Your task to perform on an android device: turn off airplane mode Image 0: 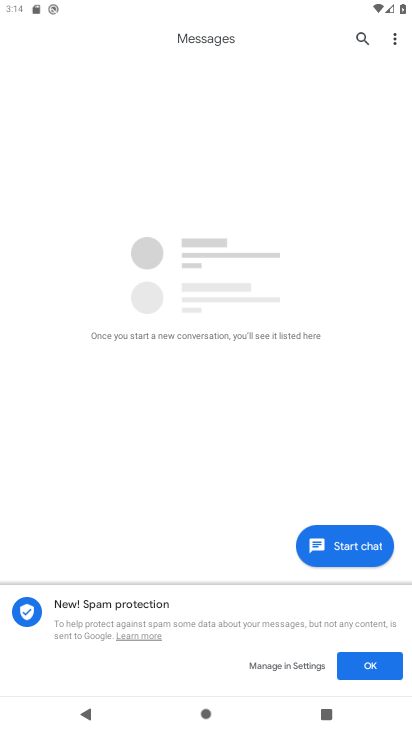
Step 0: press home button
Your task to perform on an android device: turn off airplane mode Image 1: 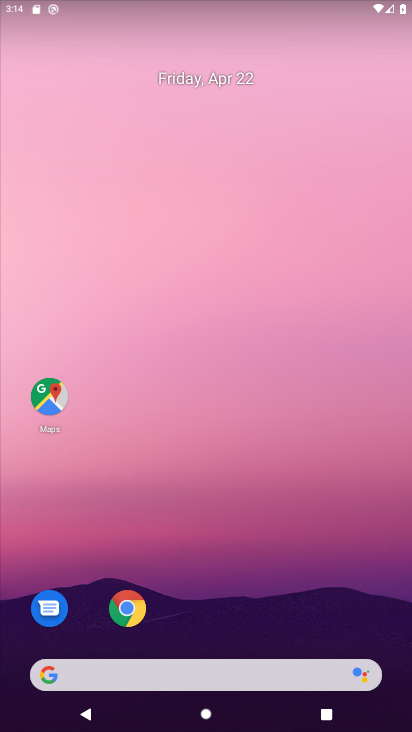
Step 1: task complete